Your task to perform on an android device: turn off smart reply in the gmail app Image 0: 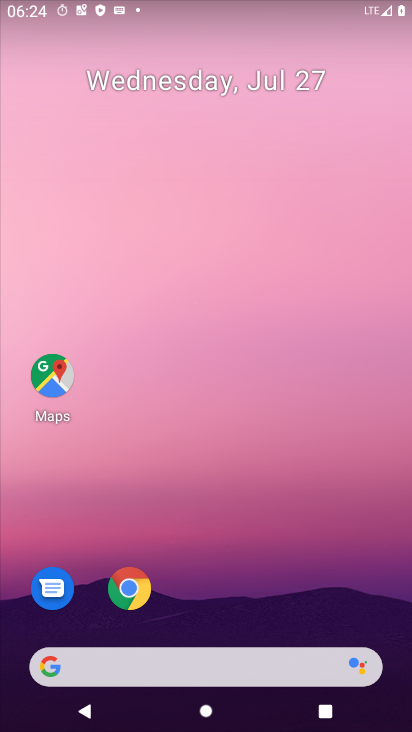
Step 0: drag from (338, 634) to (409, 513)
Your task to perform on an android device: turn off smart reply in the gmail app Image 1: 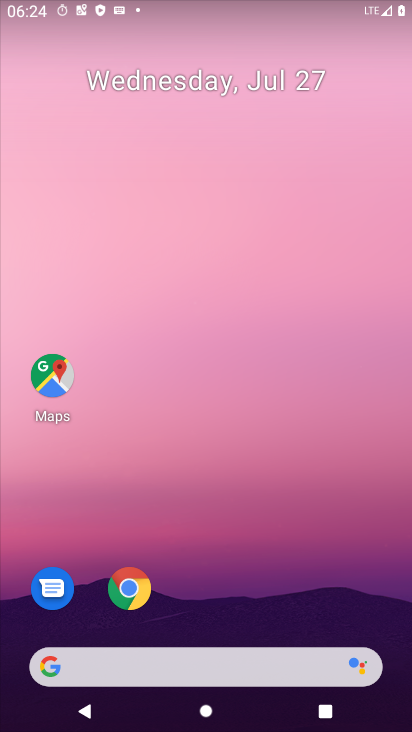
Step 1: drag from (208, 590) to (354, 0)
Your task to perform on an android device: turn off smart reply in the gmail app Image 2: 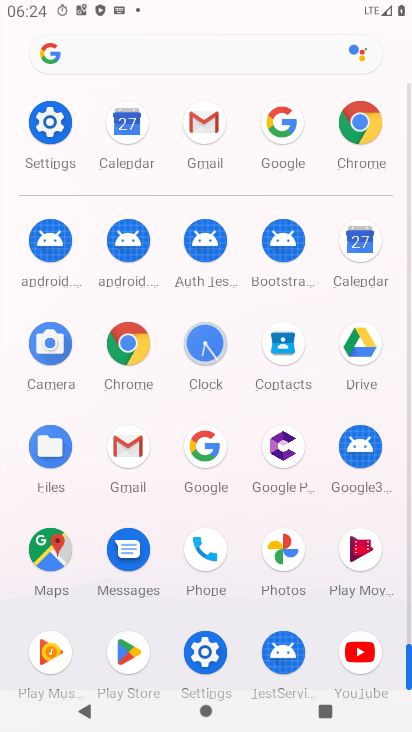
Step 2: click (135, 468)
Your task to perform on an android device: turn off smart reply in the gmail app Image 3: 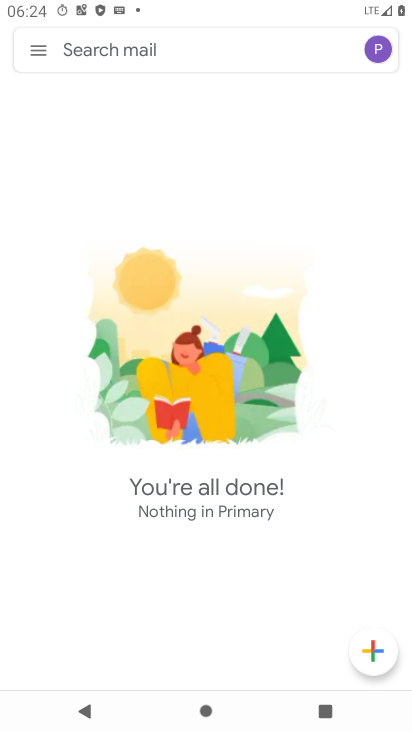
Step 3: click (22, 45)
Your task to perform on an android device: turn off smart reply in the gmail app Image 4: 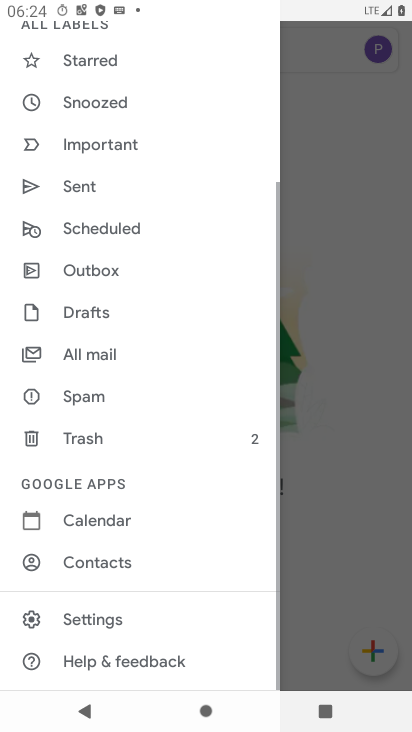
Step 4: click (92, 621)
Your task to perform on an android device: turn off smart reply in the gmail app Image 5: 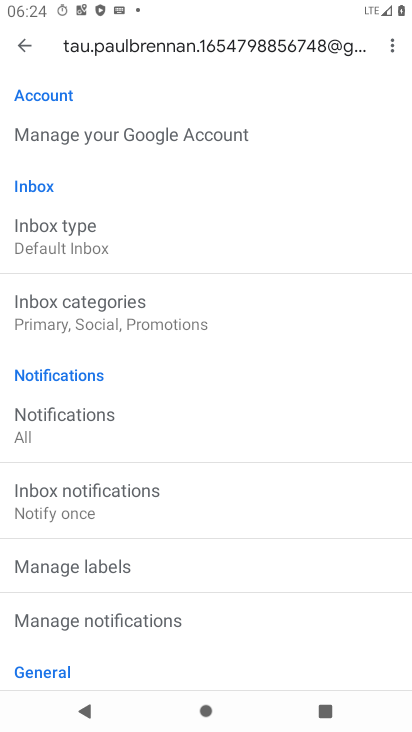
Step 5: drag from (139, 586) to (201, 118)
Your task to perform on an android device: turn off smart reply in the gmail app Image 6: 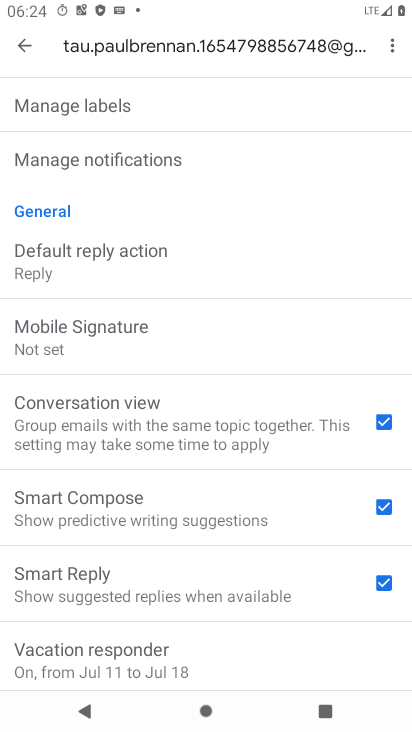
Step 6: click (232, 569)
Your task to perform on an android device: turn off smart reply in the gmail app Image 7: 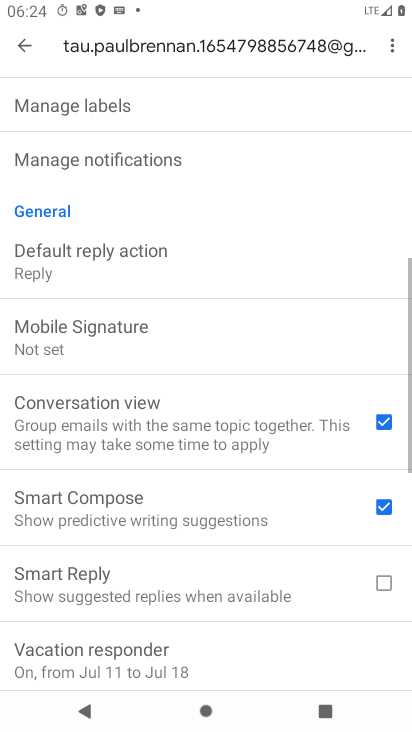
Step 7: task complete